Your task to perform on an android device: Go to CNN.com Image 0: 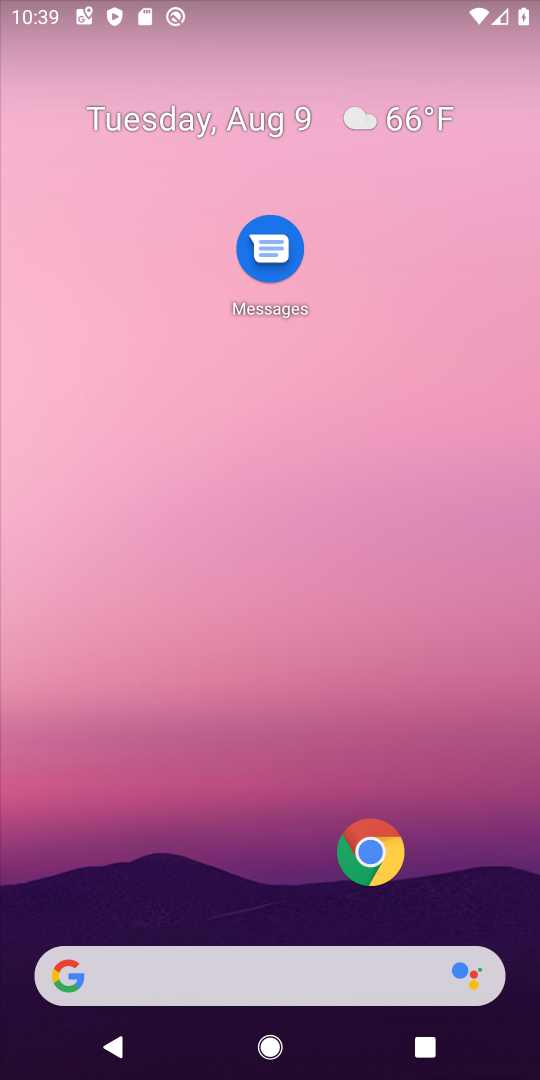
Step 0: click (177, 983)
Your task to perform on an android device: Go to CNN.com Image 1: 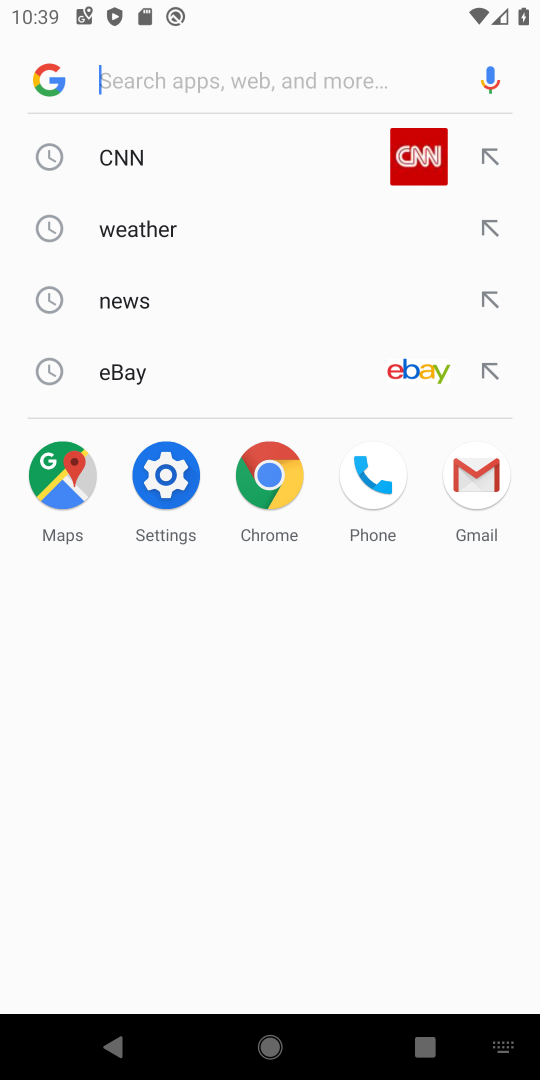
Step 1: click (330, 153)
Your task to perform on an android device: Go to CNN.com Image 2: 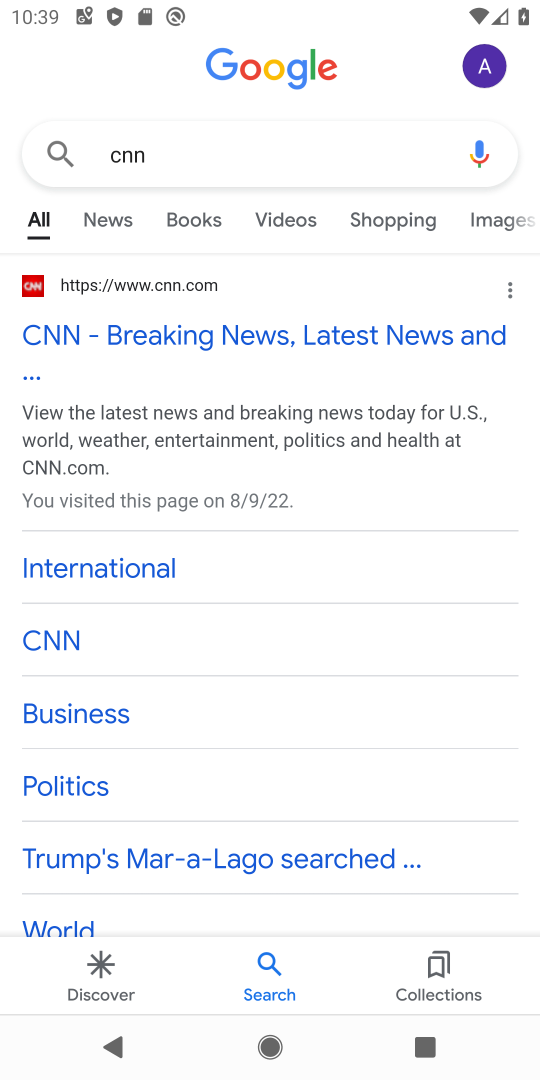
Step 2: click (136, 331)
Your task to perform on an android device: Go to CNN.com Image 3: 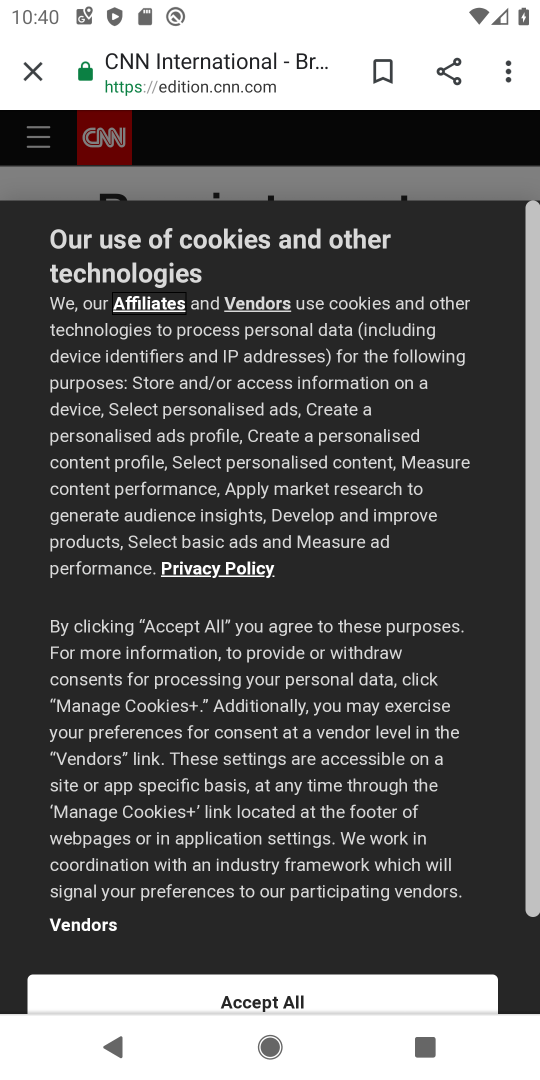
Step 3: task complete